Your task to perform on an android device: open app "Indeed Job Search" (install if not already installed) and go to login screen Image 0: 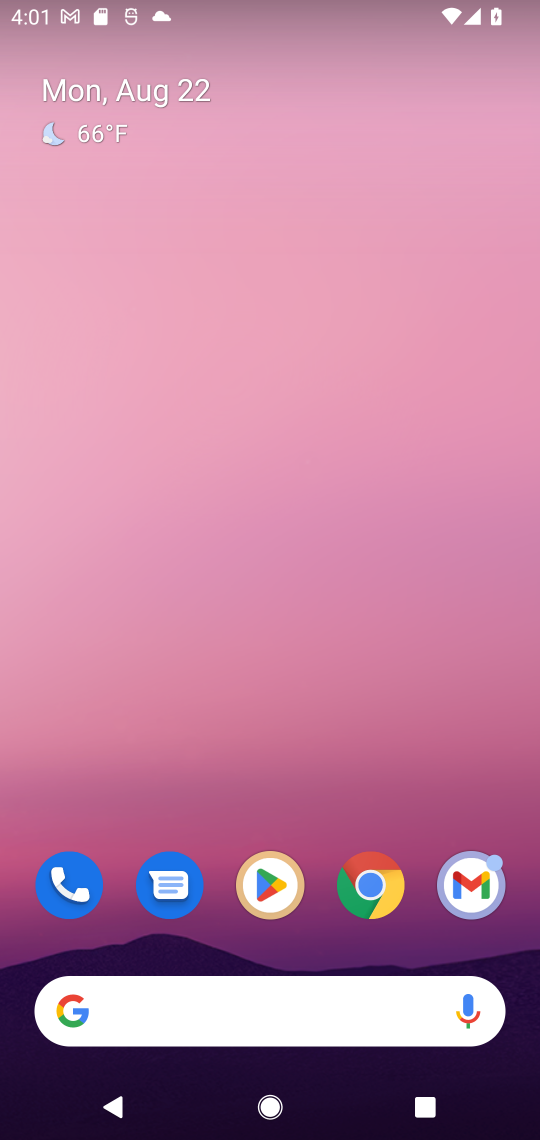
Step 0: click (274, 877)
Your task to perform on an android device: open app "Indeed Job Search" (install if not already installed) and go to login screen Image 1: 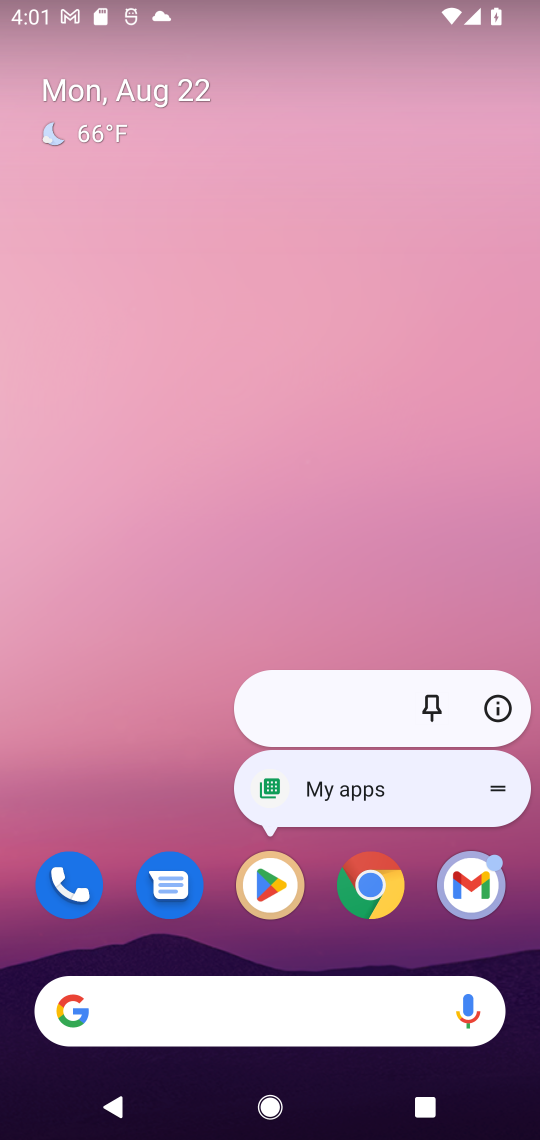
Step 1: click (269, 881)
Your task to perform on an android device: open app "Indeed Job Search" (install if not already installed) and go to login screen Image 2: 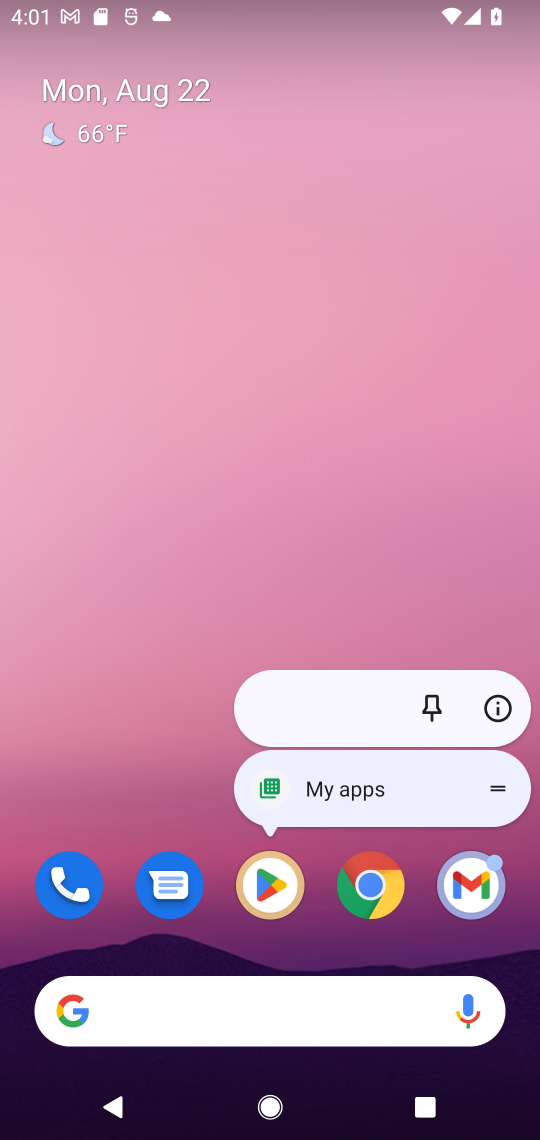
Step 2: click (268, 887)
Your task to perform on an android device: open app "Indeed Job Search" (install if not already installed) and go to login screen Image 3: 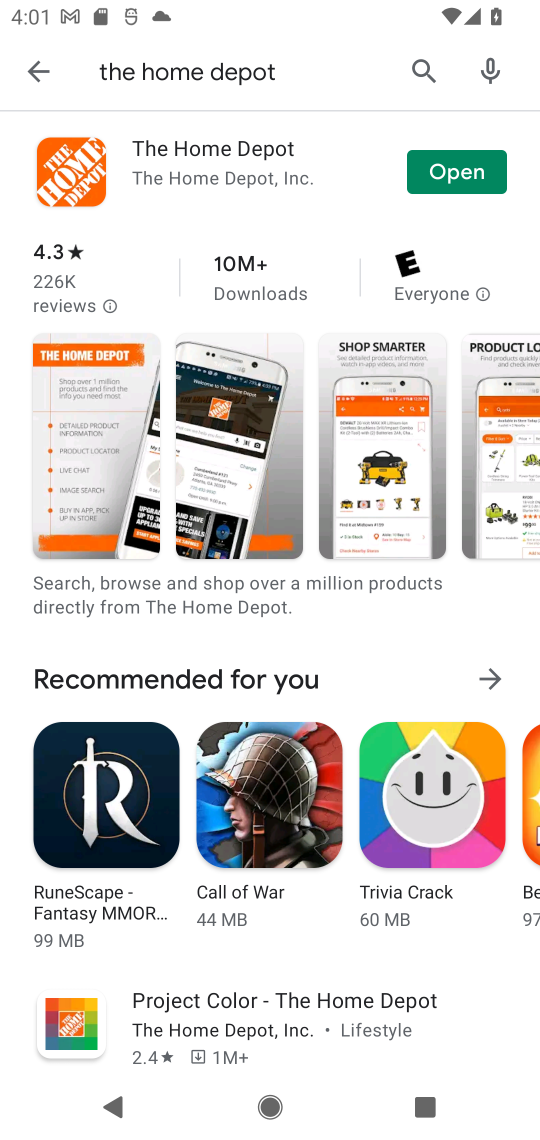
Step 3: click (415, 61)
Your task to perform on an android device: open app "Indeed Job Search" (install if not already installed) and go to login screen Image 4: 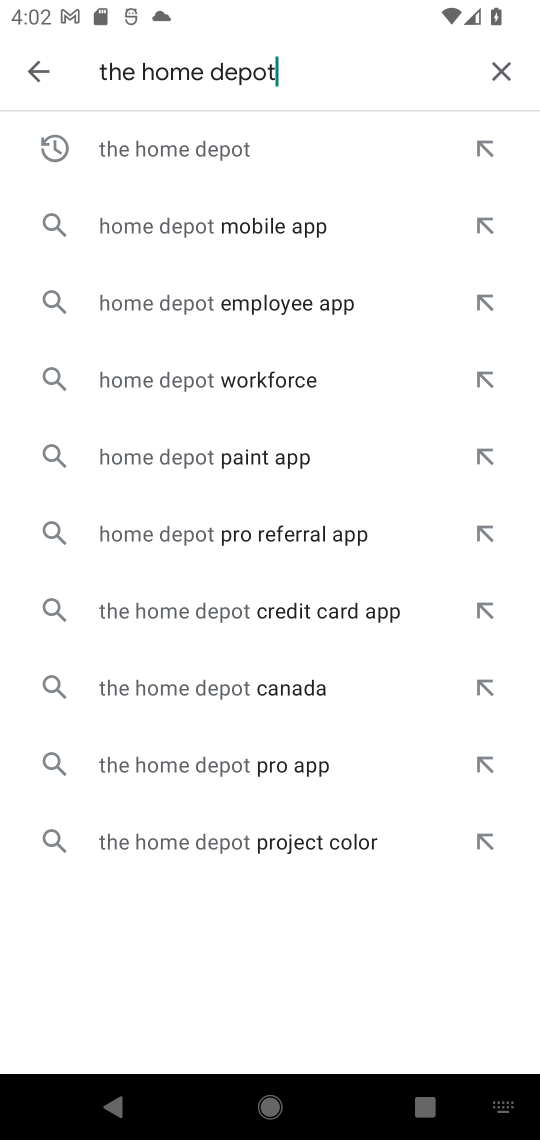
Step 4: click (506, 71)
Your task to perform on an android device: open app "Indeed Job Search" (install if not already installed) and go to login screen Image 5: 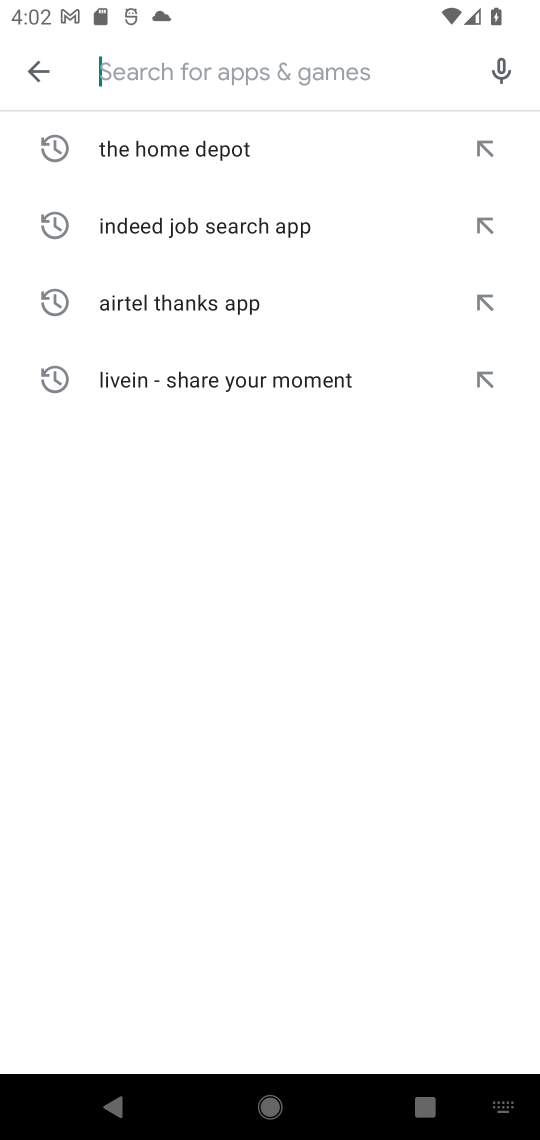
Step 5: type "Indeed Job Search"
Your task to perform on an android device: open app "Indeed Job Search" (install if not already installed) and go to login screen Image 6: 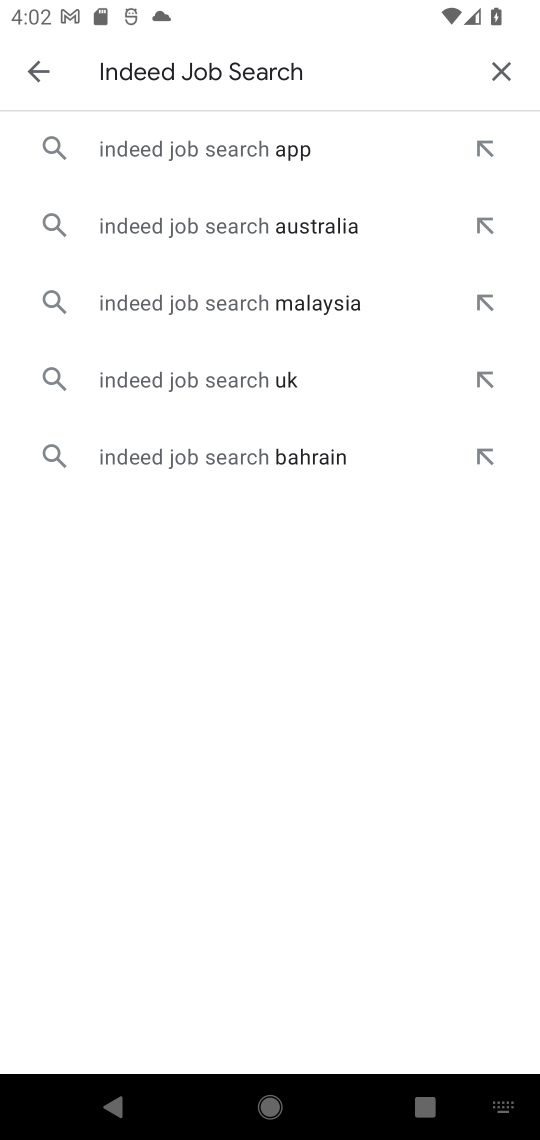
Step 6: click (242, 158)
Your task to perform on an android device: open app "Indeed Job Search" (install if not already installed) and go to login screen Image 7: 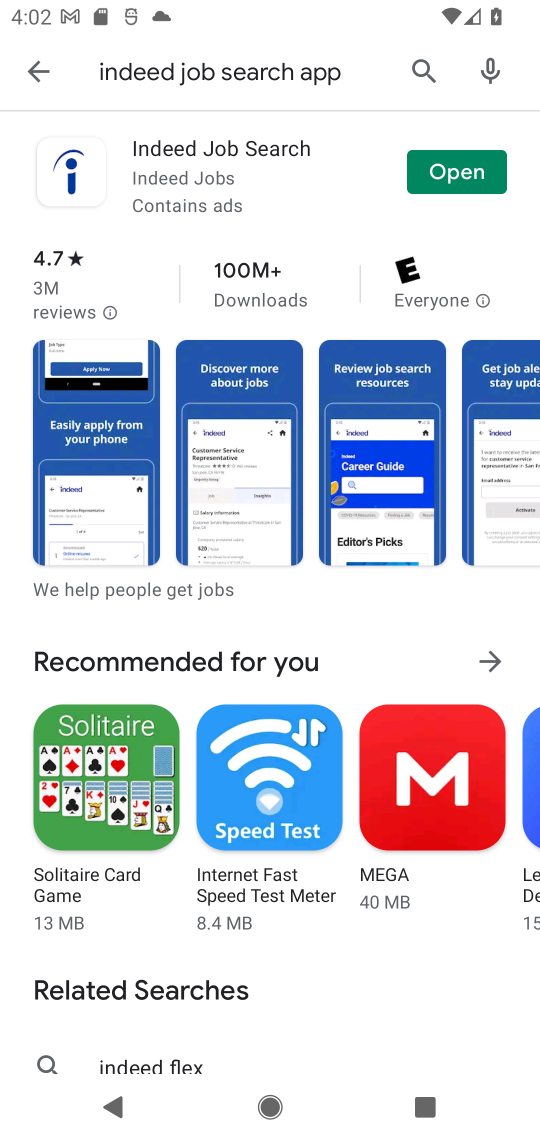
Step 7: click (459, 165)
Your task to perform on an android device: open app "Indeed Job Search" (install if not already installed) and go to login screen Image 8: 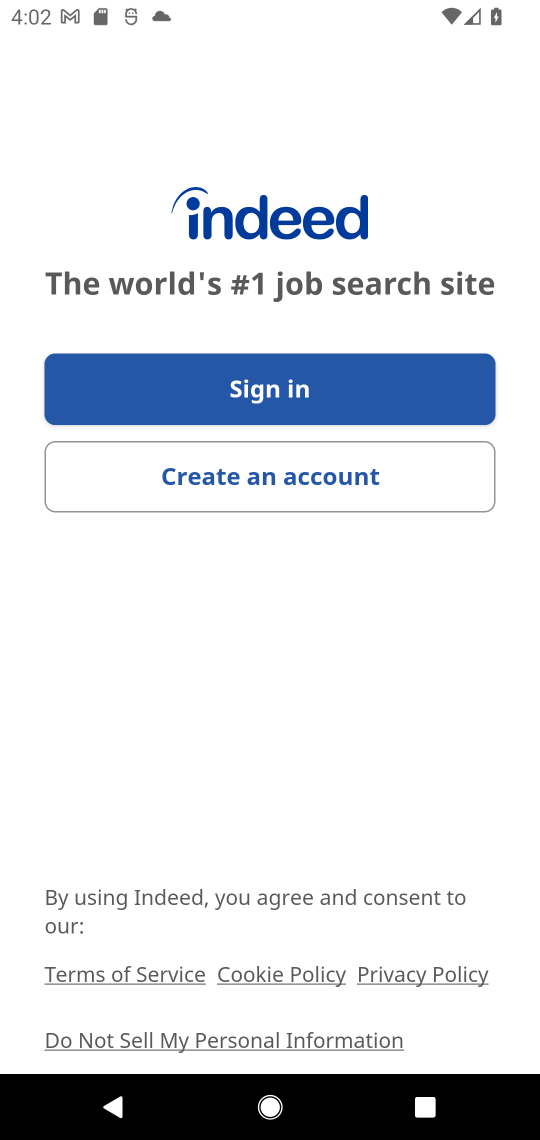
Step 8: click (278, 390)
Your task to perform on an android device: open app "Indeed Job Search" (install if not already installed) and go to login screen Image 9: 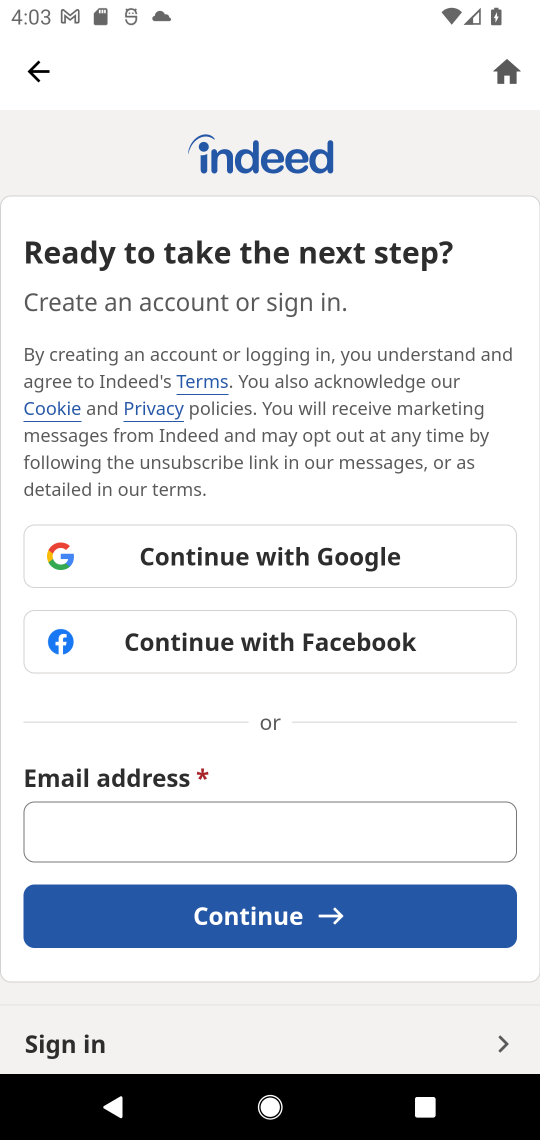
Step 9: click (257, 553)
Your task to perform on an android device: open app "Indeed Job Search" (install if not already installed) and go to login screen Image 10: 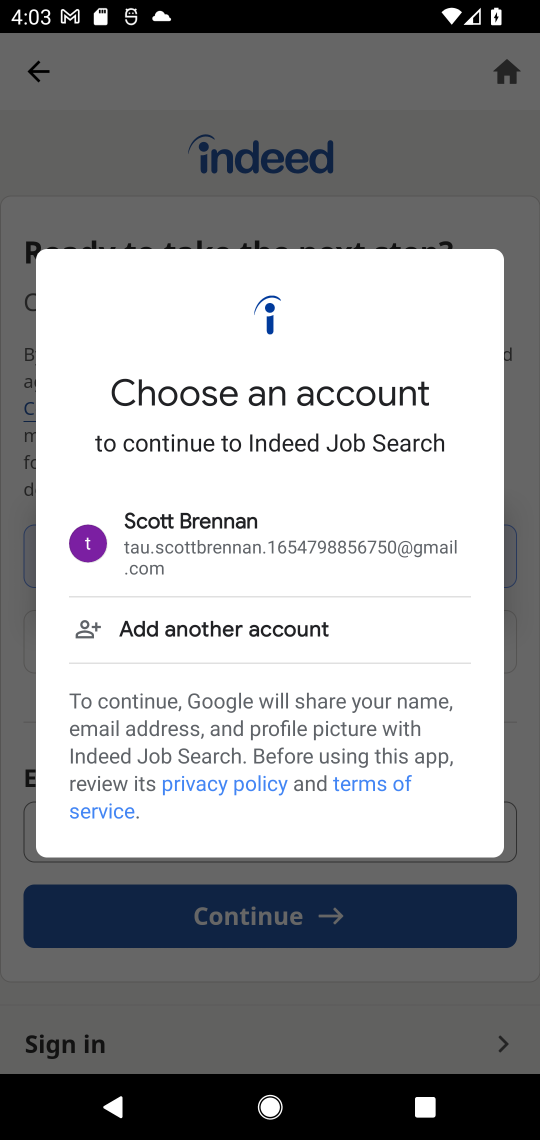
Step 10: click (222, 549)
Your task to perform on an android device: open app "Indeed Job Search" (install if not already installed) and go to login screen Image 11: 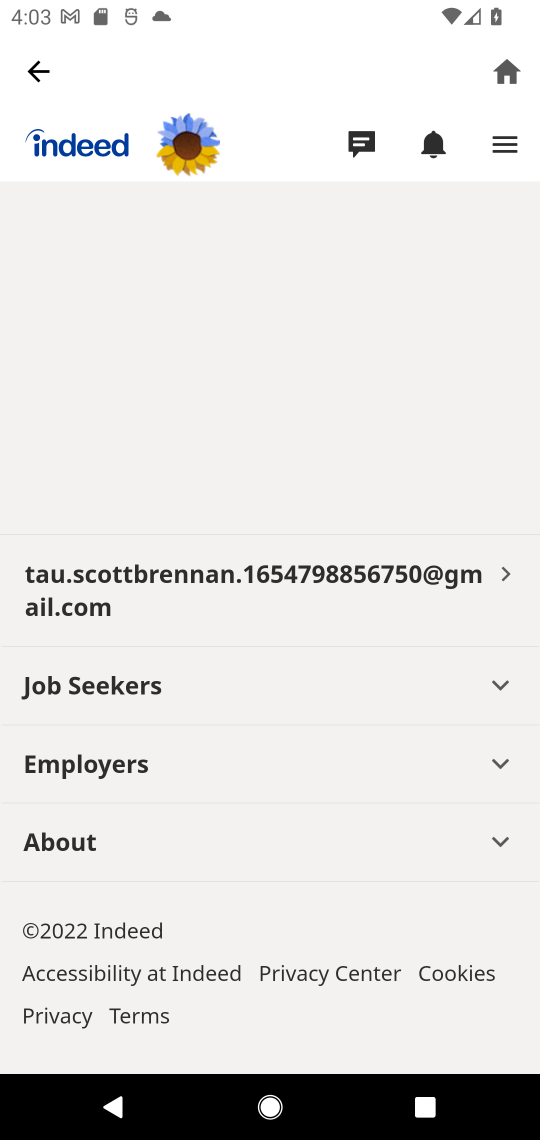
Step 11: task complete